Your task to perform on an android device: change the clock display to show seconds Image 0: 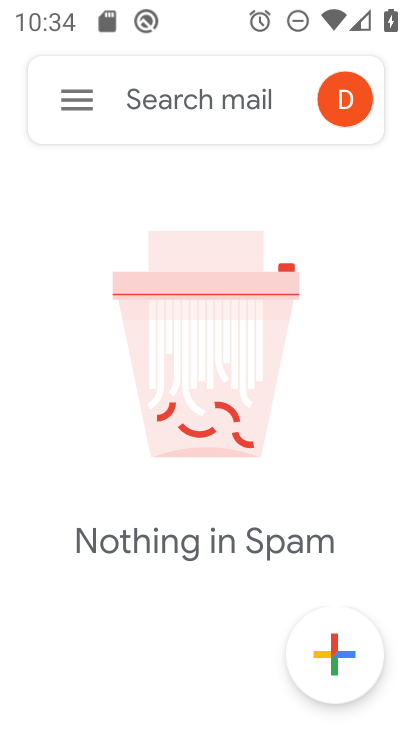
Step 0: press home button
Your task to perform on an android device: change the clock display to show seconds Image 1: 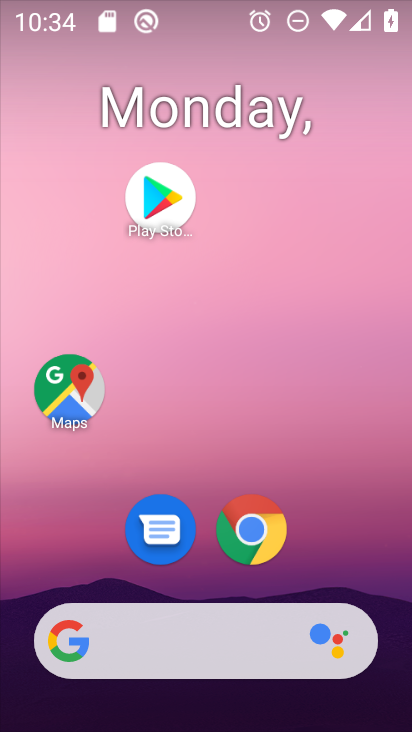
Step 1: drag from (309, 524) to (112, 0)
Your task to perform on an android device: change the clock display to show seconds Image 2: 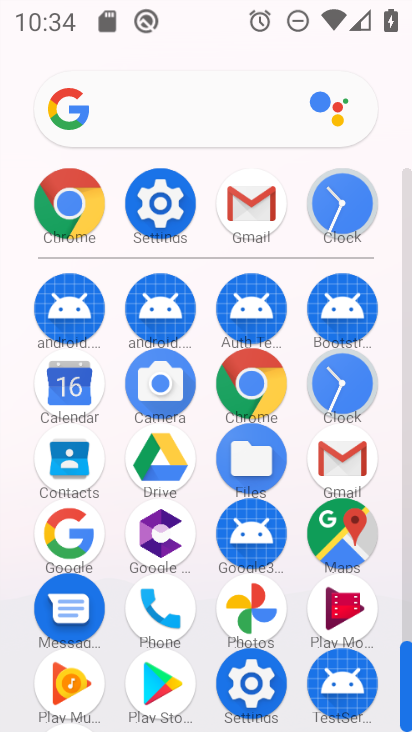
Step 2: click (342, 202)
Your task to perform on an android device: change the clock display to show seconds Image 3: 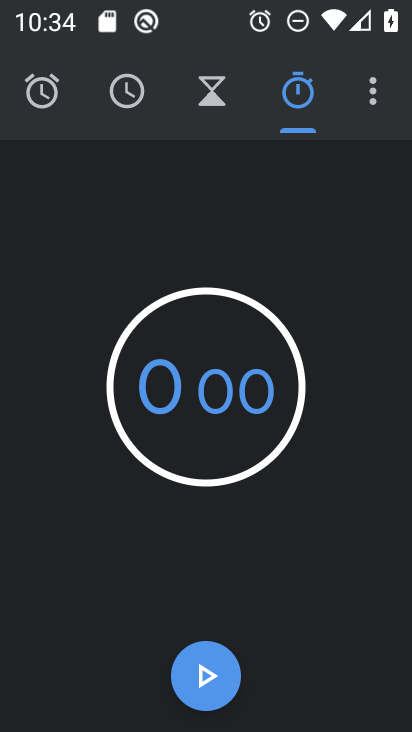
Step 3: click (371, 94)
Your task to perform on an android device: change the clock display to show seconds Image 4: 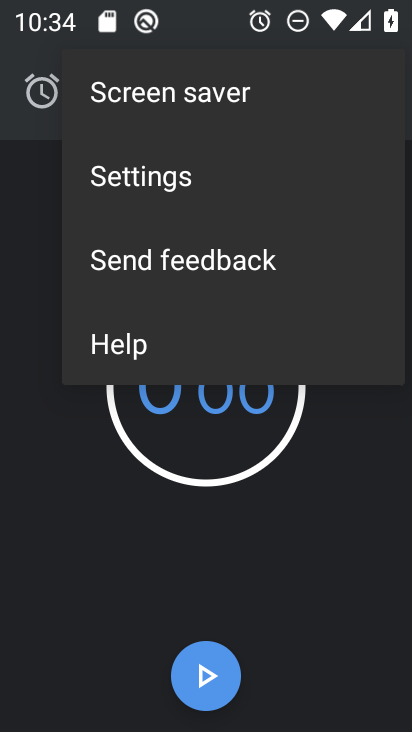
Step 4: click (166, 177)
Your task to perform on an android device: change the clock display to show seconds Image 5: 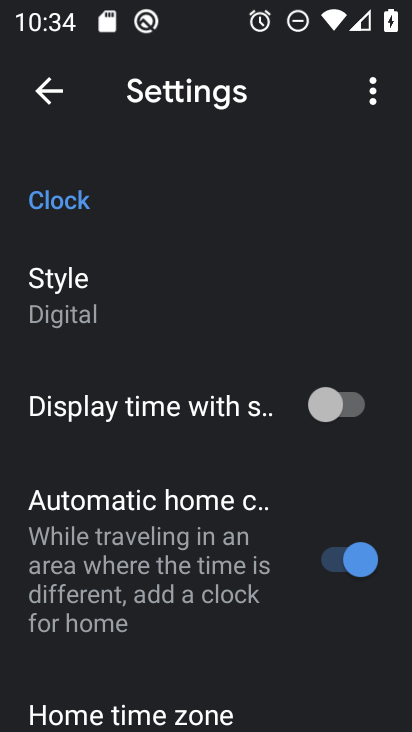
Step 5: click (329, 401)
Your task to perform on an android device: change the clock display to show seconds Image 6: 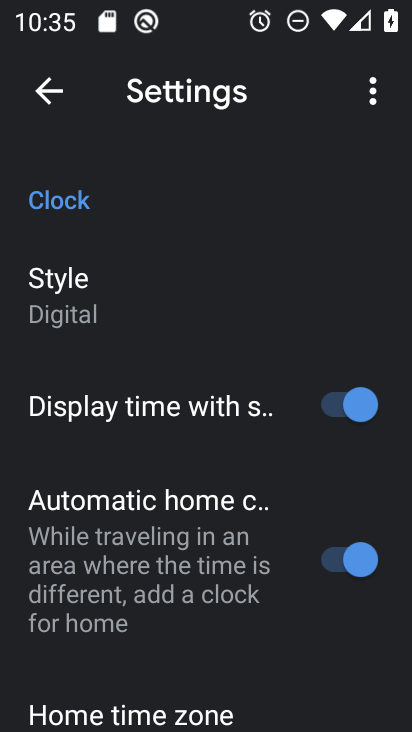
Step 6: task complete